Your task to perform on an android device: Open Google Maps Image 0: 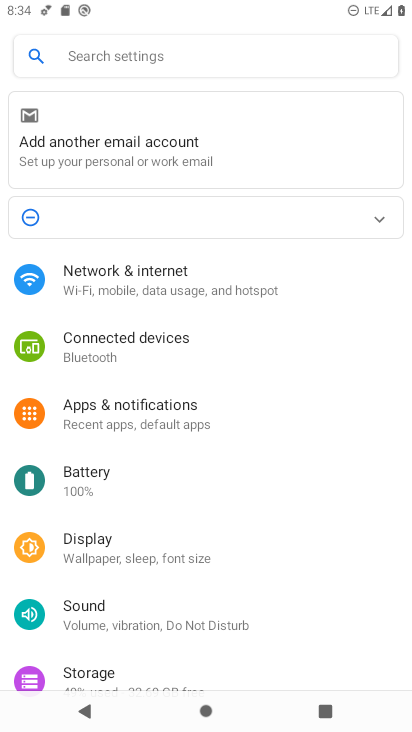
Step 0: press home button
Your task to perform on an android device: Open Google Maps Image 1: 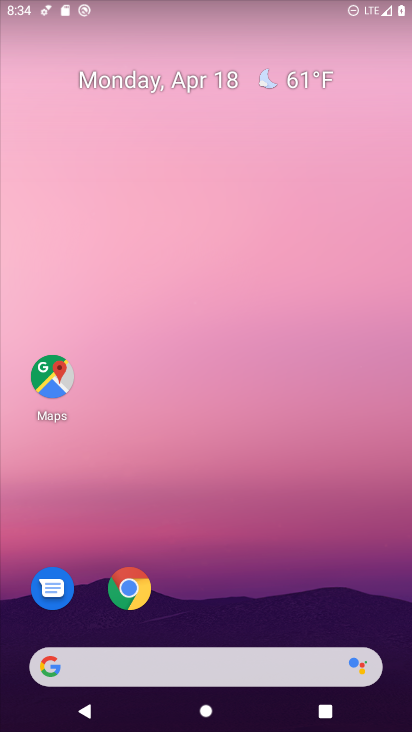
Step 1: click (51, 373)
Your task to perform on an android device: Open Google Maps Image 2: 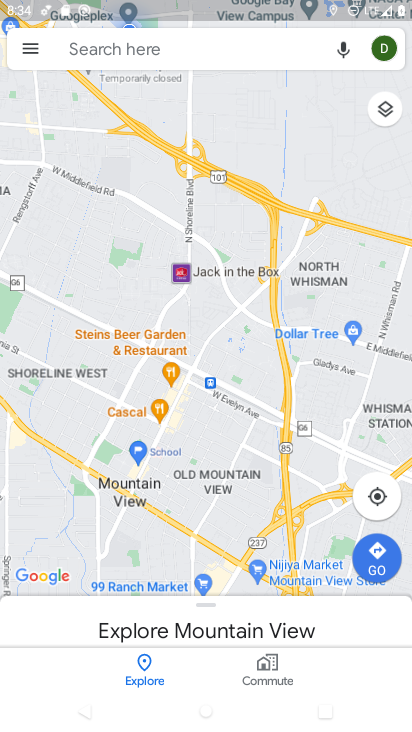
Step 2: task complete